Your task to perform on an android device: Open my contact list Image 0: 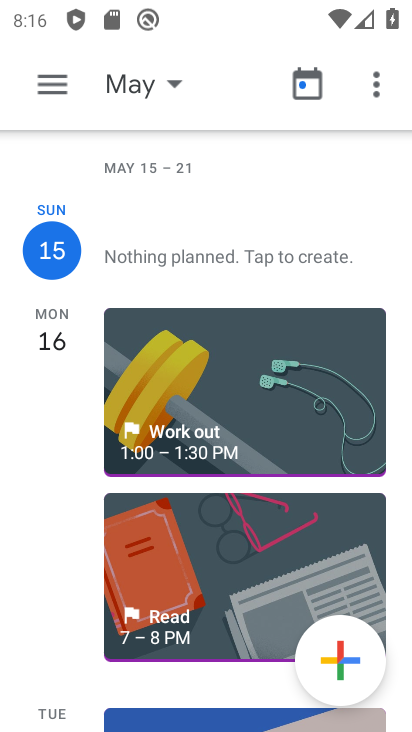
Step 0: press home button
Your task to perform on an android device: Open my contact list Image 1: 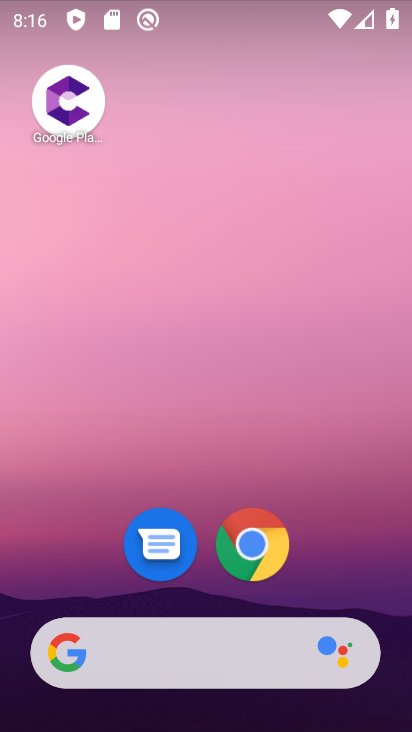
Step 1: drag from (356, 564) to (255, 32)
Your task to perform on an android device: Open my contact list Image 2: 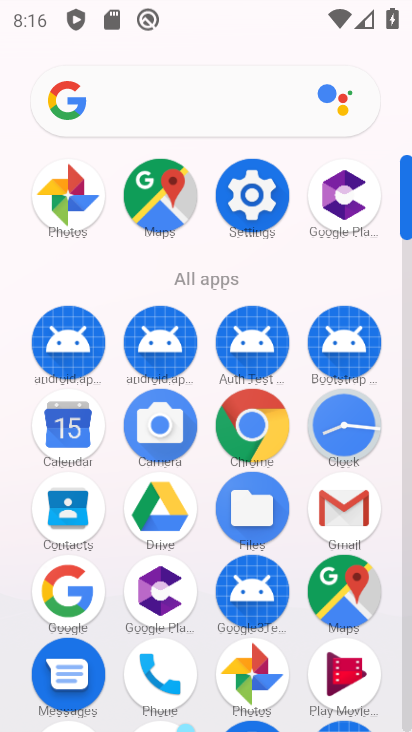
Step 2: click (48, 514)
Your task to perform on an android device: Open my contact list Image 3: 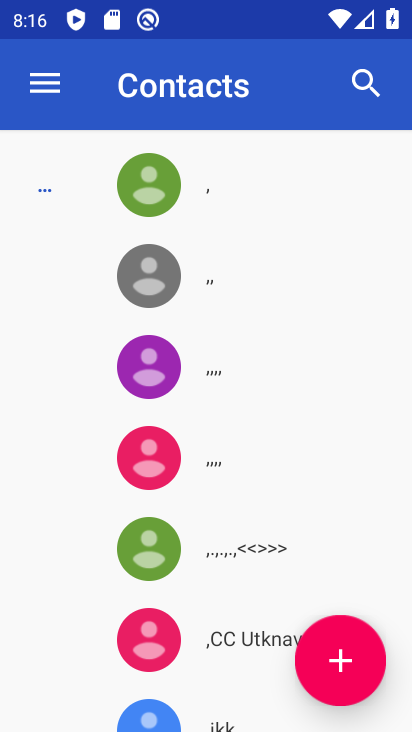
Step 3: task complete